Your task to perform on an android device: Open Google Chrome and open the bookmarks view Image 0: 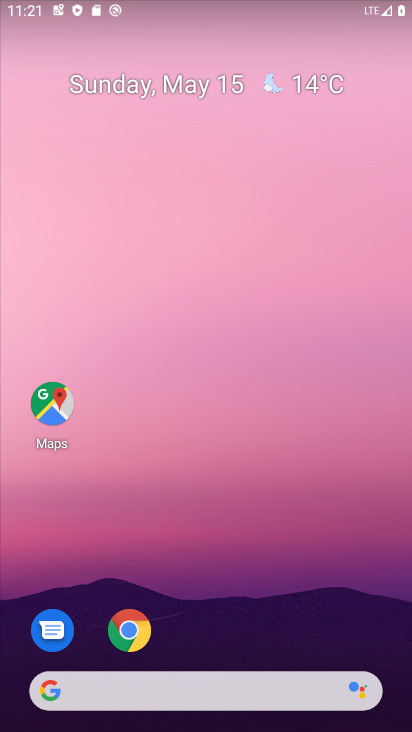
Step 0: click (129, 632)
Your task to perform on an android device: Open Google Chrome and open the bookmarks view Image 1: 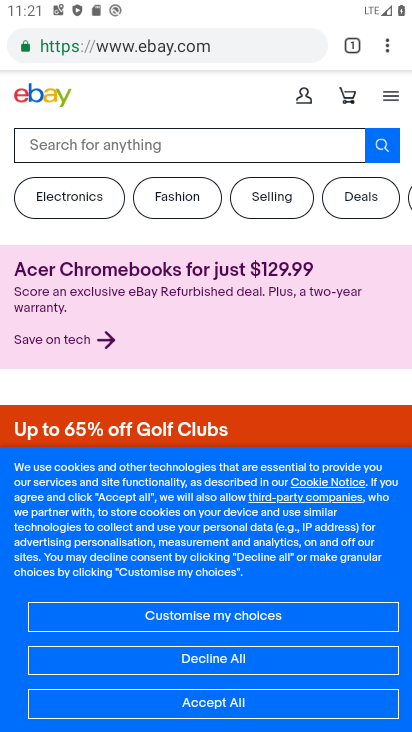
Step 1: click (389, 43)
Your task to perform on an android device: Open Google Chrome and open the bookmarks view Image 2: 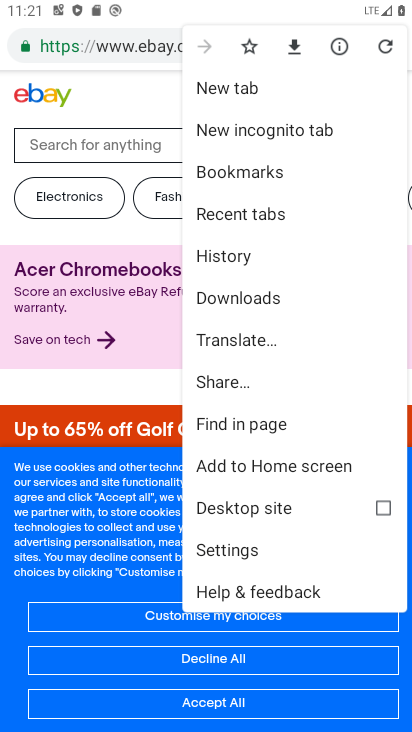
Step 2: click (245, 169)
Your task to perform on an android device: Open Google Chrome and open the bookmarks view Image 3: 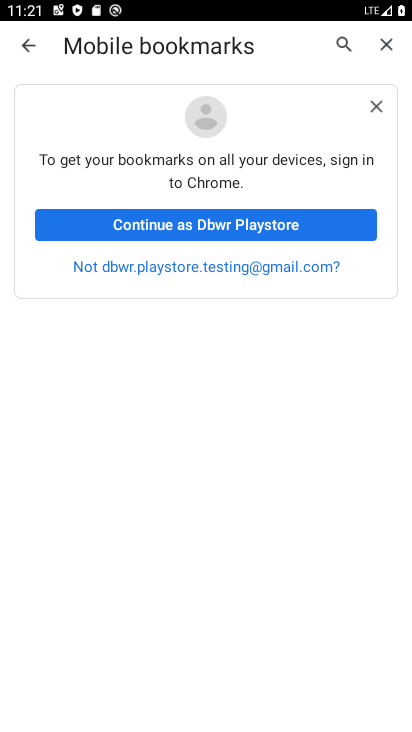
Step 3: click (378, 111)
Your task to perform on an android device: Open Google Chrome and open the bookmarks view Image 4: 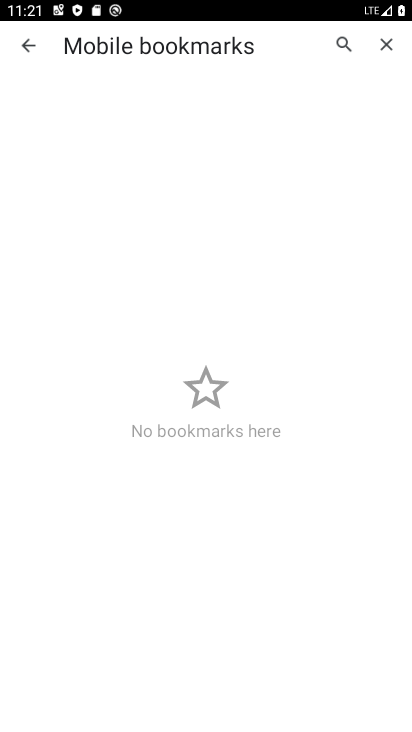
Step 4: task complete